Your task to perform on an android device: turn off data saver in the chrome app Image 0: 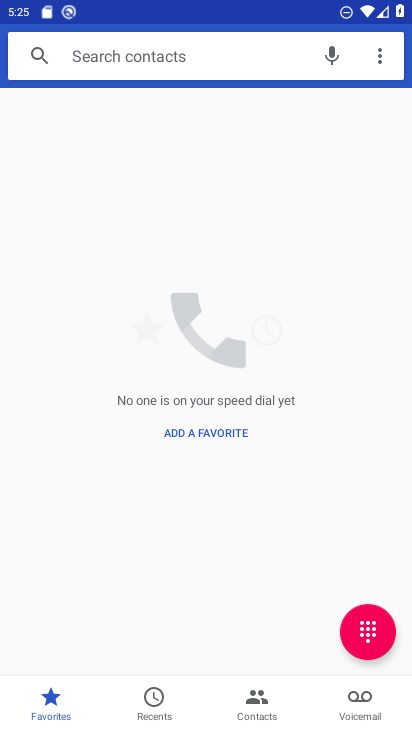
Step 0: press home button
Your task to perform on an android device: turn off data saver in the chrome app Image 1: 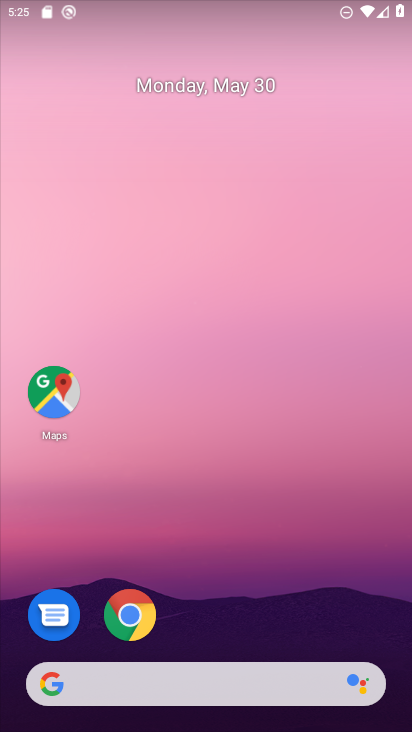
Step 1: click (134, 617)
Your task to perform on an android device: turn off data saver in the chrome app Image 2: 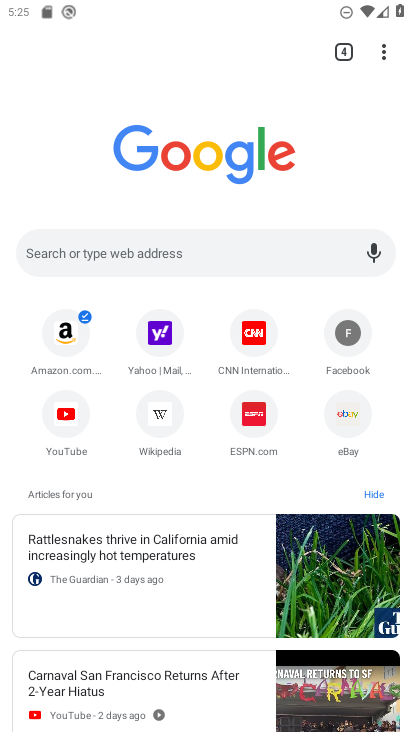
Step 2: click (388, 41)
Your task to perform on an android device: turn off data saver in the chrome app Image 3: 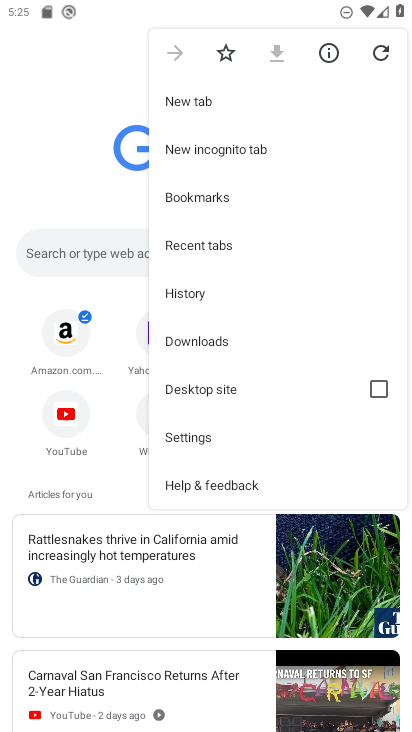
Step 3: click (226, 444)
Your task to perform on an android device: turn off data saver in the chrome app Image 4: 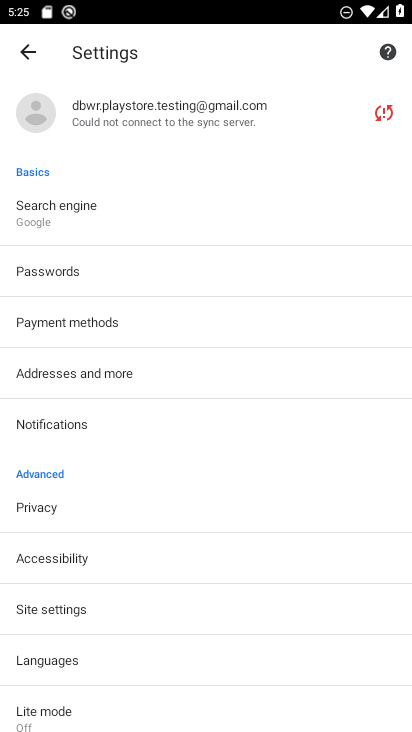
Step 4: click (157, 723)
Your task to perform on an android device: turn off data saver in the chrome app Image 5: 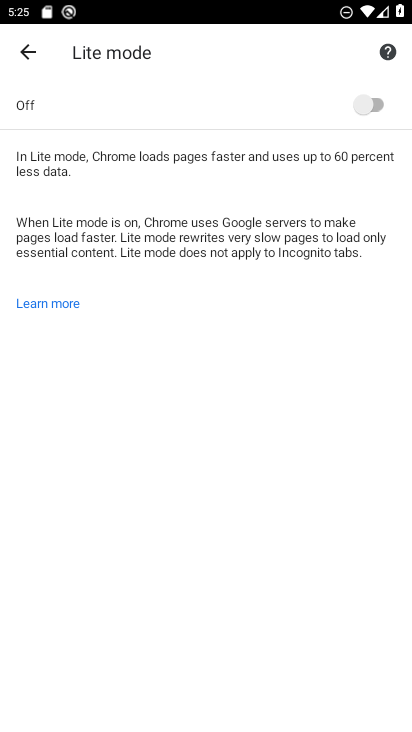
Step 5: task complete